Your task to perform on an android device: turn smart compose on in the gmail app Image 0: 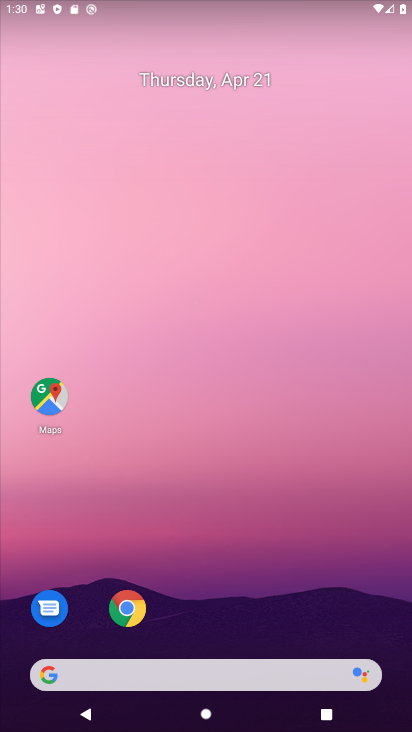
Step 0: drag from (314, 298) to (333, 94)
Your task to perform on an android device: turn smart compose on in the gmail app Image 1: 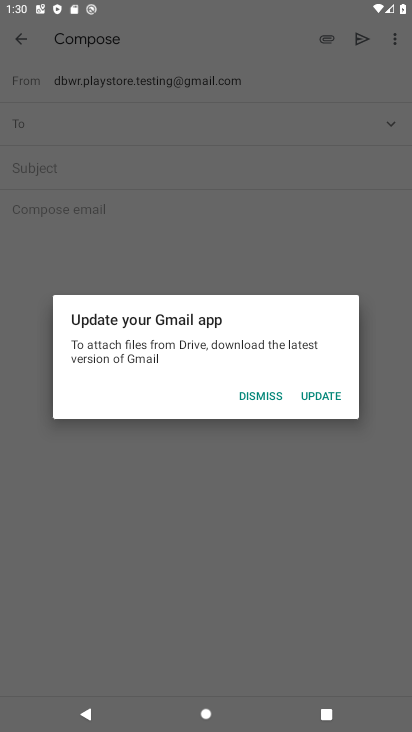
Step 1: press home button
Your task to perform on an android device: turn smart compose on in the gmail app Image 2: 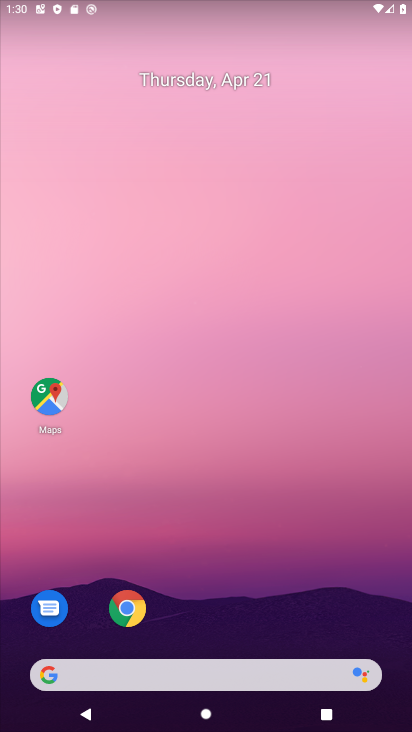
Step 2: drag from (250, 391) to (298, 24)
Your task to perform on an android device: turn smart compose on in the gmail app Image 3: 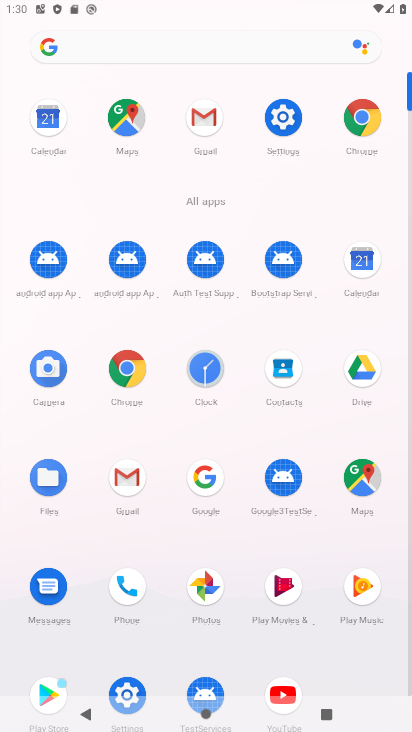
Step 3: click (209, 125)
Your task to perform on an android device: turn smart compose on in the gmail app Image 4: 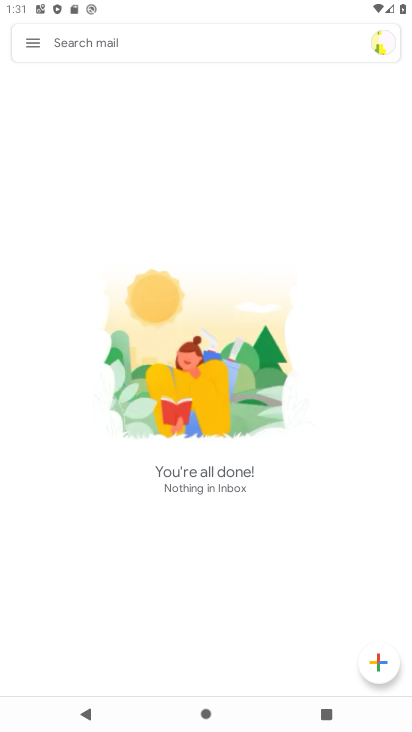
Step 4: click (33, 44)
Your task to perform on an android device: turn smart compose on in the gmail app Image 5: 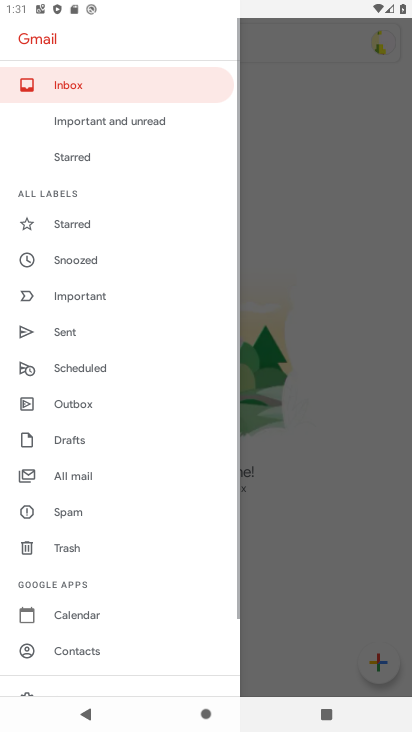
Step 5: drag from (106, 646) to (132, 168)
Your task to perform on an android device: turn smart compose on in the gmail app Image 6: 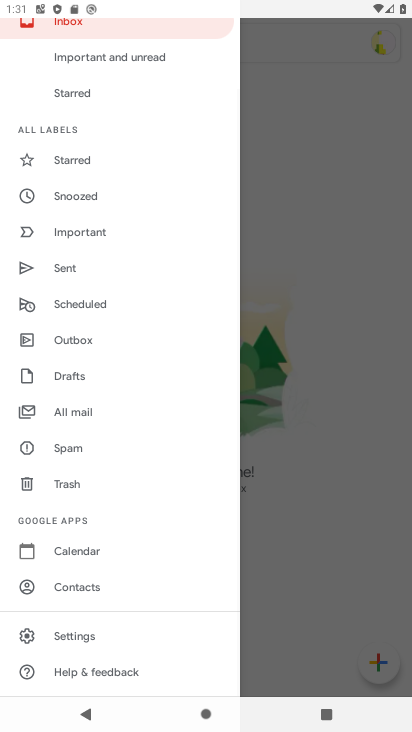
Step 6: click (91, 634)
Your task to perform on an android device: turn smart compose on in the gmail app Image 7: 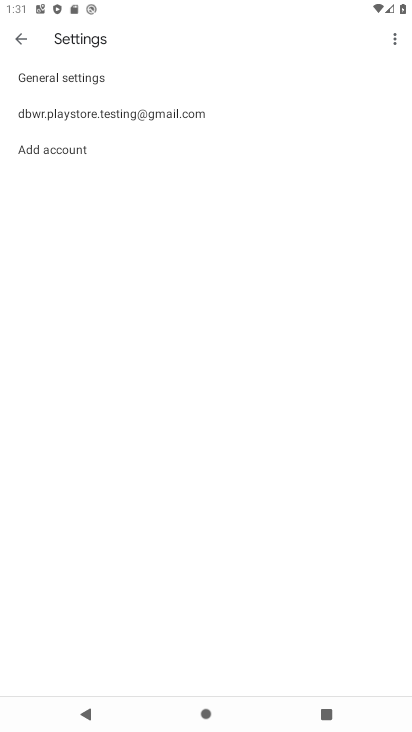
Step 7: click (180, 117)
Your task to perform on an android device: turn smart compose on in the gmail app Image 8: 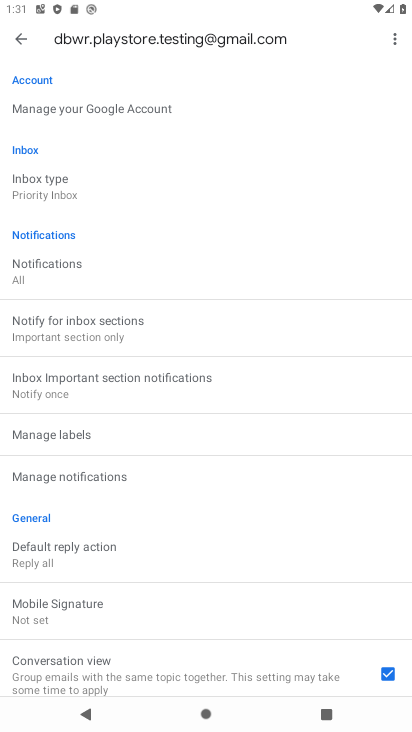
Step 8: task complete